Your task to perform on an android device: show emergency info Image 0: 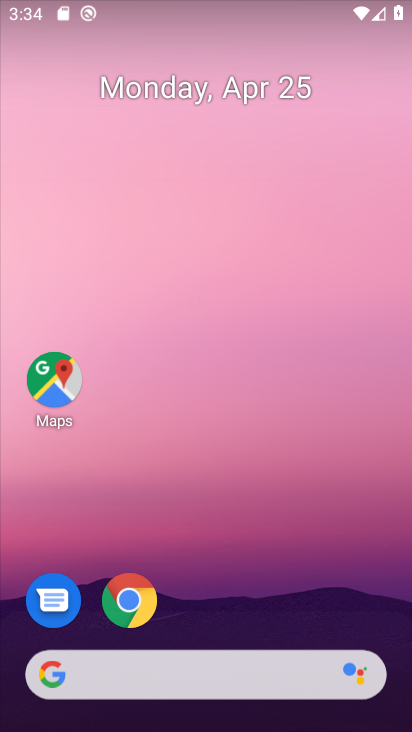
Step 0: drag from (209, 596) to (310, 98)
Your task to perform on an android device: show emergency info Image 1: 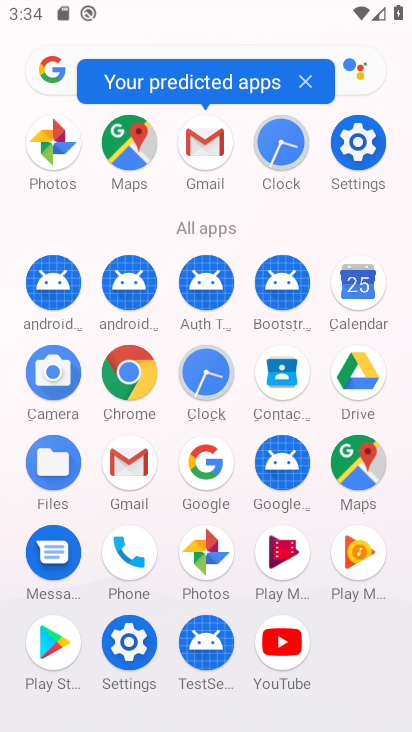
Step 1: click (357, 140)
Your task to perform on an android device: show emergency info Image 2: 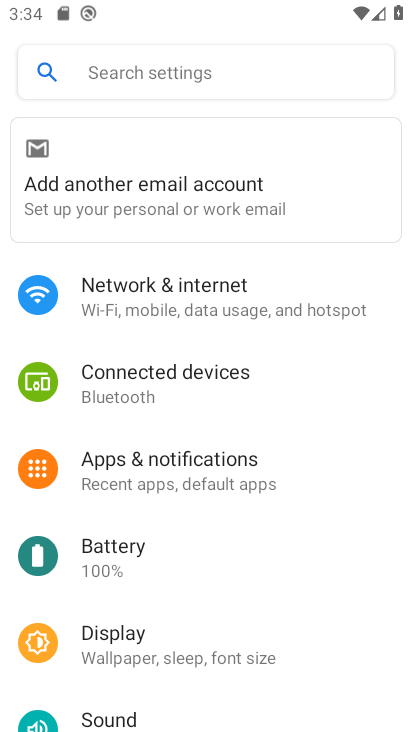
Step 2: drag from (204, 526) to (298, 89)
Your task to perform on an android device: show emergency info Image 3: 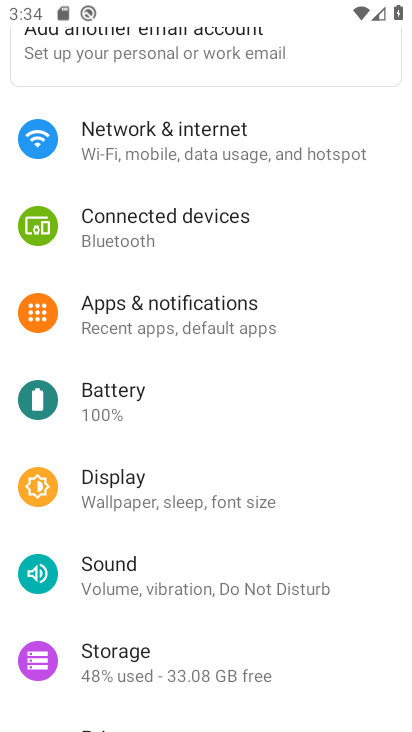
Step 3: drag from (181, 636) to (268, 104)
Your task to perform on an android device: show emergency info Image 4: 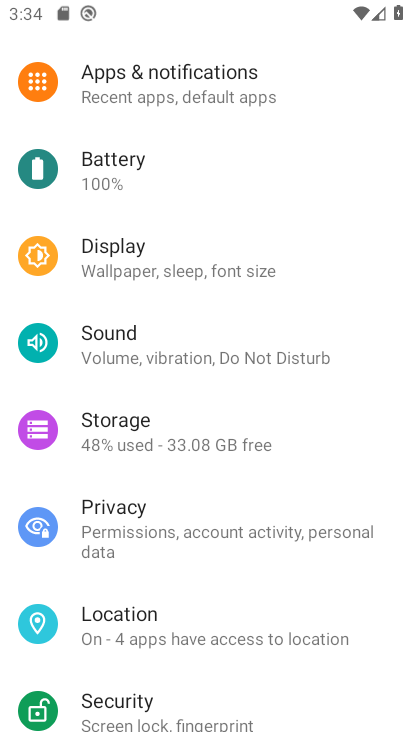
Step 4: drag from (190, 608) to (309, 71)
Your task to perform on an android device: show emergency info Image 5: 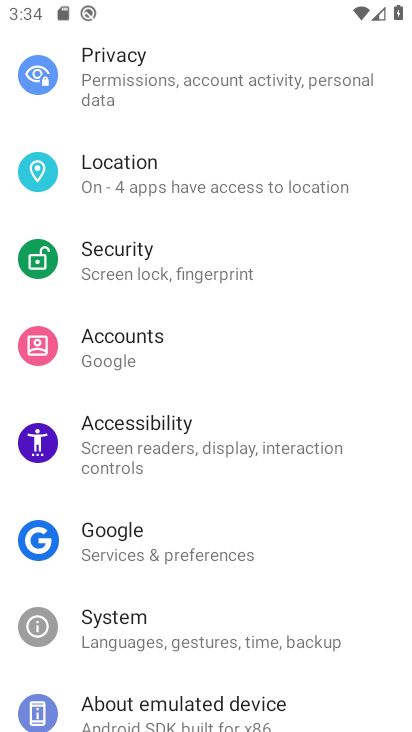
Step 5: drag from (163, 651) to (244, 169)
Your task to perform on an android device: show emergency info Image 6: 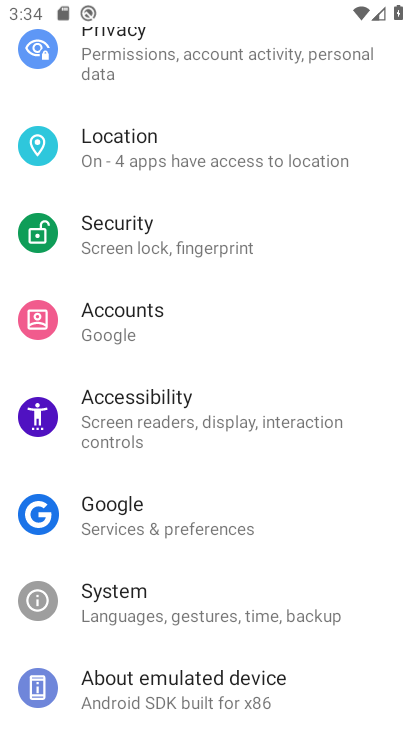
Step 6: click (189, 693)
Your task to perform on an android device: show emergency info Image 7: 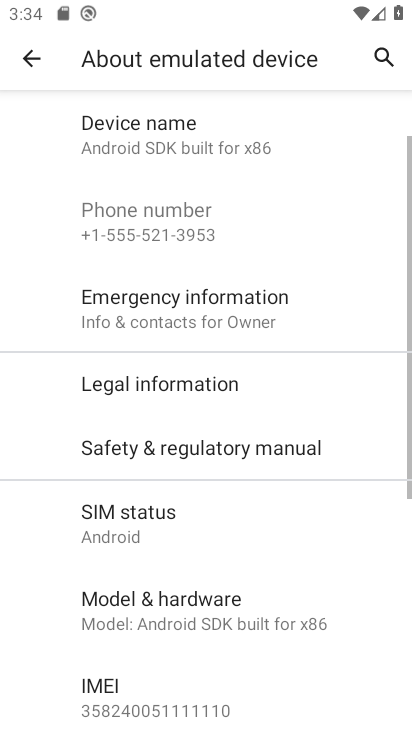
Step 7: click (180, 307)
Your task to perform on an android device: show emergency info Image 8: 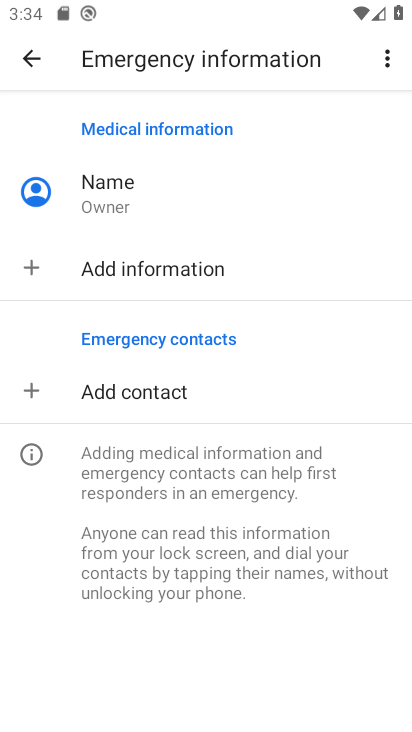
Step 8: task complete